Your task to perform on an android device: turn on the 24-hour format for clock Image 0: 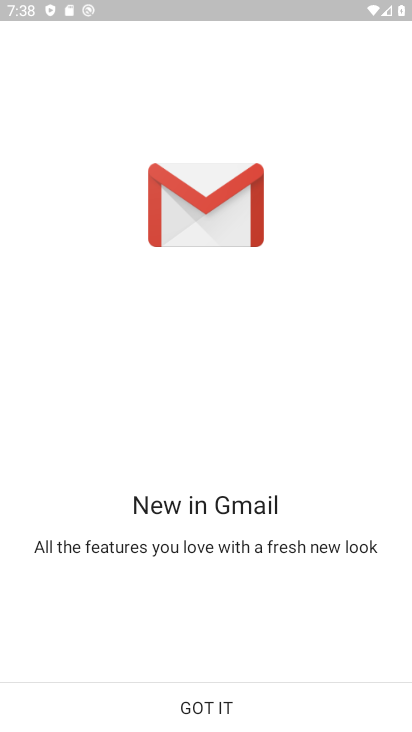
Step 0: click (317, 711)
Your task to perform on an android device: turn on the 24-hour format for clock Image 1: 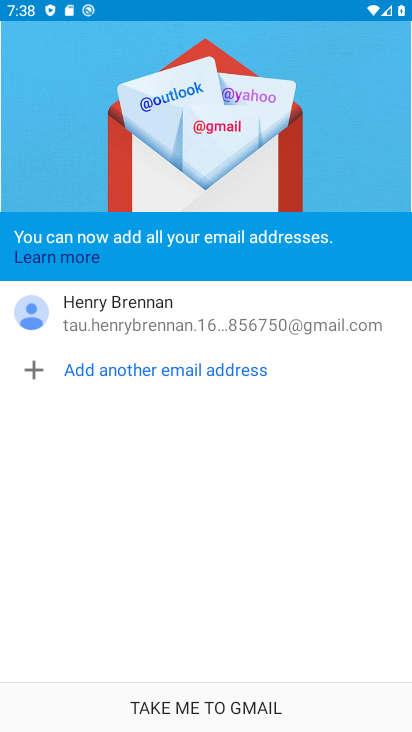
Step 1: click (270, 715)
Your task to perform on an android device: turn on the 24-hour format for clock Image 2: 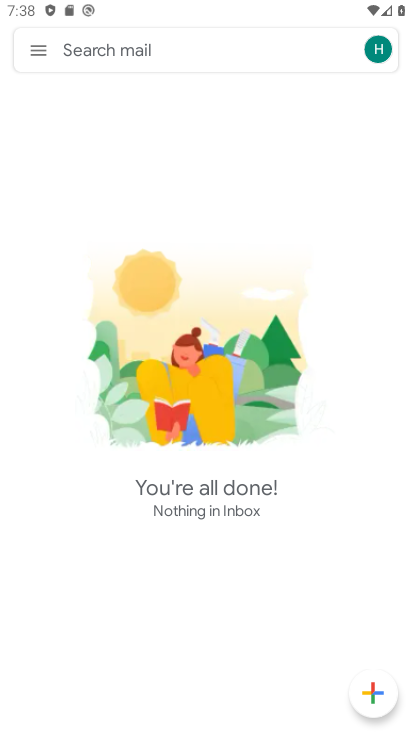
Step 2: press home button
Your task to perform on an android device: turn on the 24-hour format for clock Image 3: 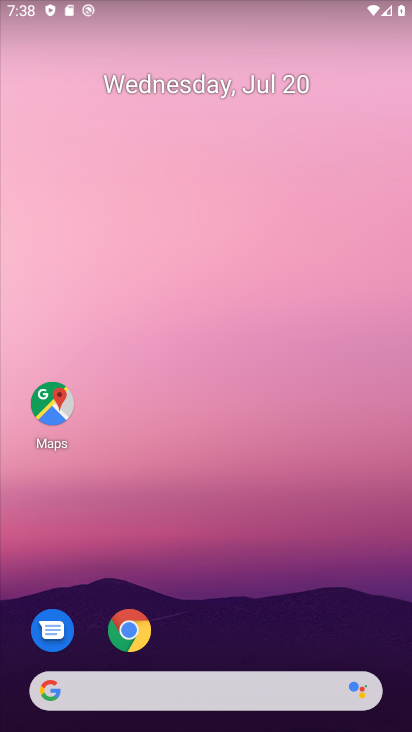
Step 3: drag from (205, 684) to (204, 235)
Your task to perform on an android device: turn on the 24-hour format for clock Image 4: 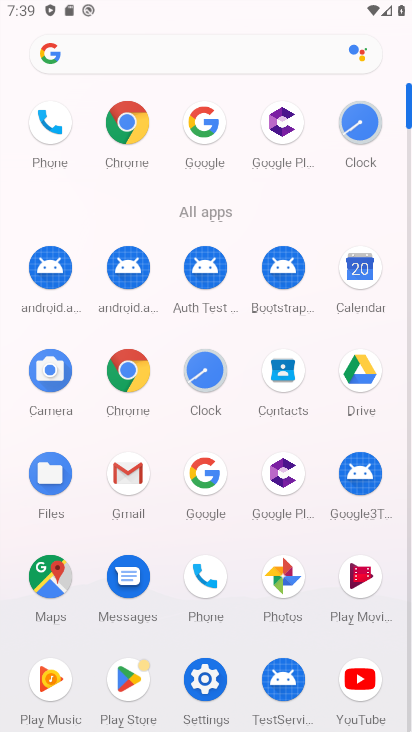
Step 4: click (342, 152)
Your task to perform on an android device: turn on the 24-hour format for clock Image 5: 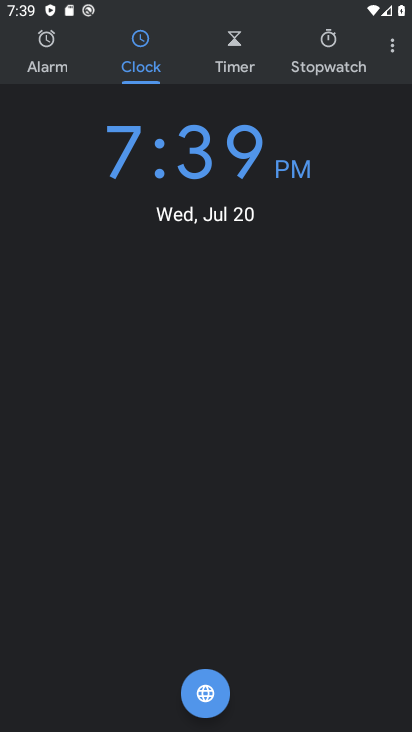
Step 5: click (394, 53)
Your task to perform on an android device: turn on the 24-hour format for clock Image 6: 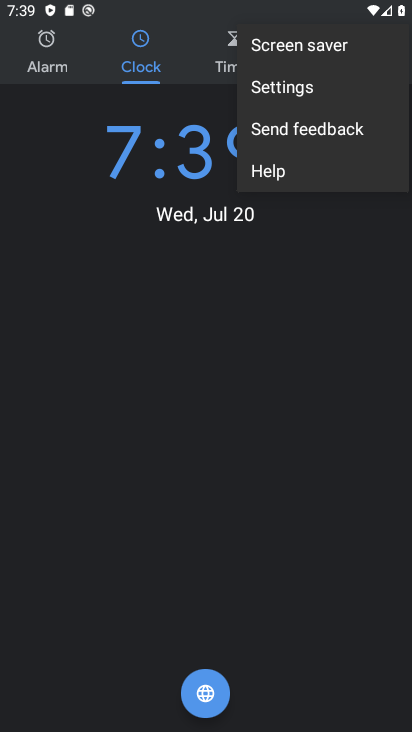
Step 6: click (277, 89)
Your task to perform on an android device: turn on the 24-hour format for clock Image 7: 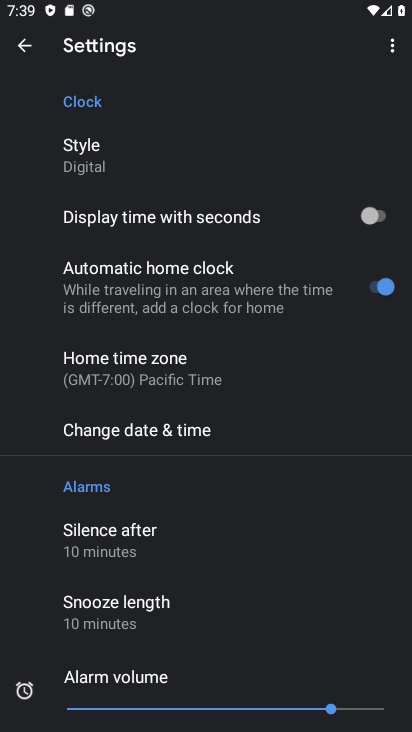
Step 7: click (154, 439)
Your task to perform on an android device: turn on the 24-hour format for clock Image 8: 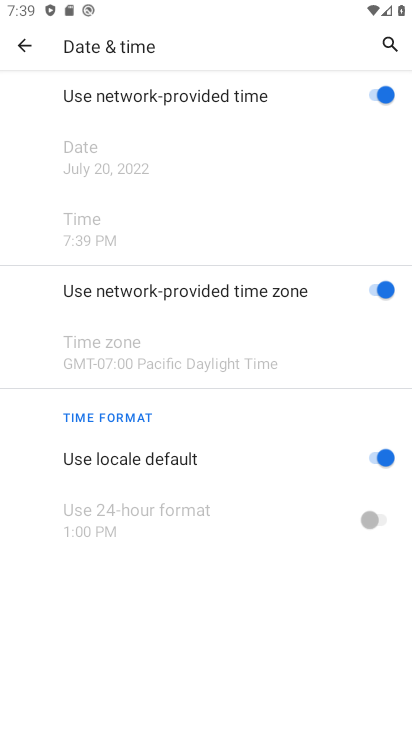
Step 8: task complete